Your task to perform on an android device: Turn on the flashlight Image 0: 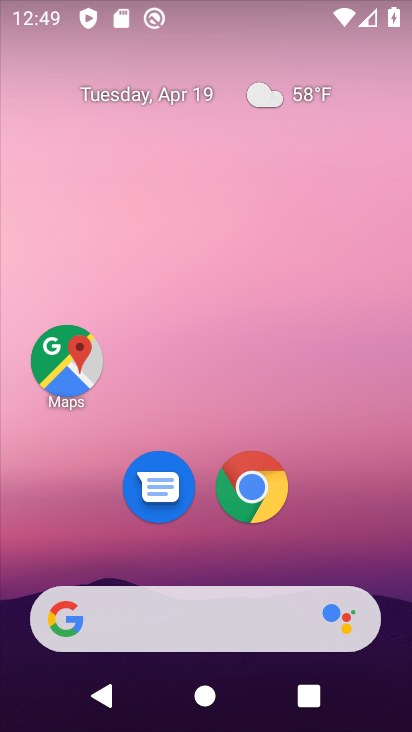
Step 0: drag from (202, 725) to (204, 0)
Your task to perform on an android device: Turn on the flashlight Image 1: 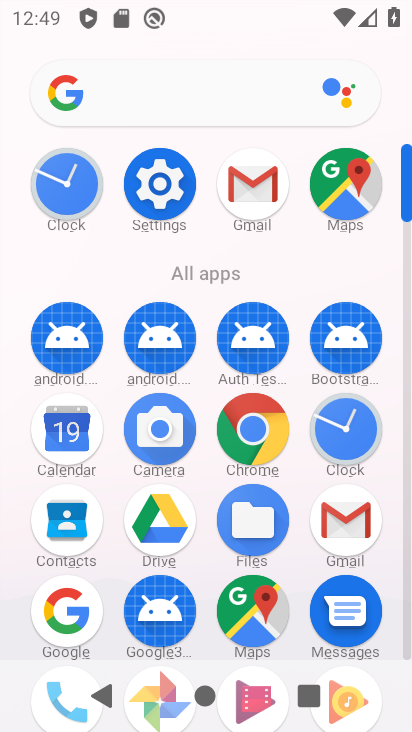
Step 1: click (150, 183)
Your task to perform on an android device: Turn on the flashlight Image 2: 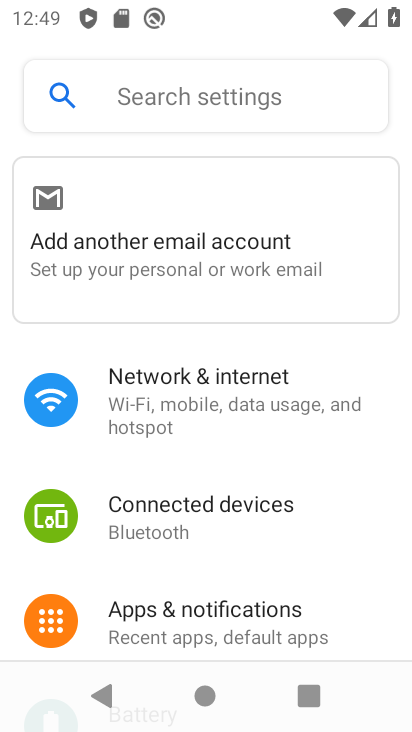
Step 2: task complete